Your task to perform on an android device: open sync settings in chrome Image 0: 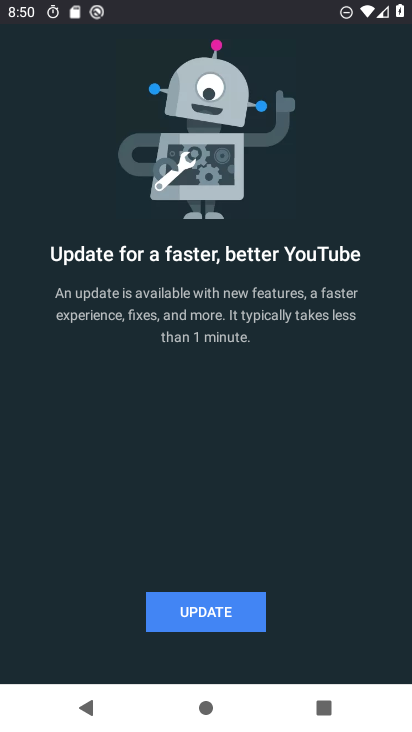
Step 0: press home button
Your task to perform on an android device: open sync settings in chrome Image 1: 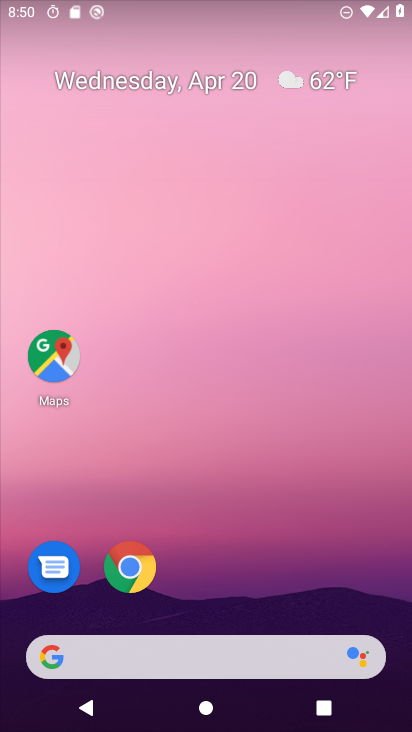
Step 1: click (135, 563)
Your task to perform on an android device: open sync settings in chrome Image 2: 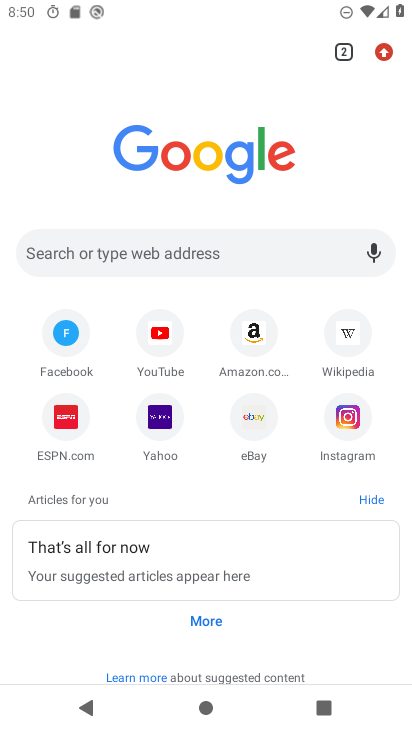
Step 2: click (378, 54)
Your task to perform on an android device: open sync settings in chrome Image 3: 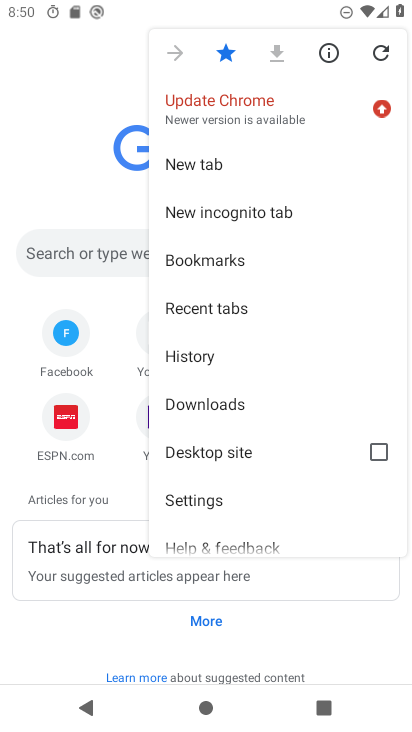
Step 3: click (191, 499)
Your task to perform on an android device: open sync settings in chrome Image 4: 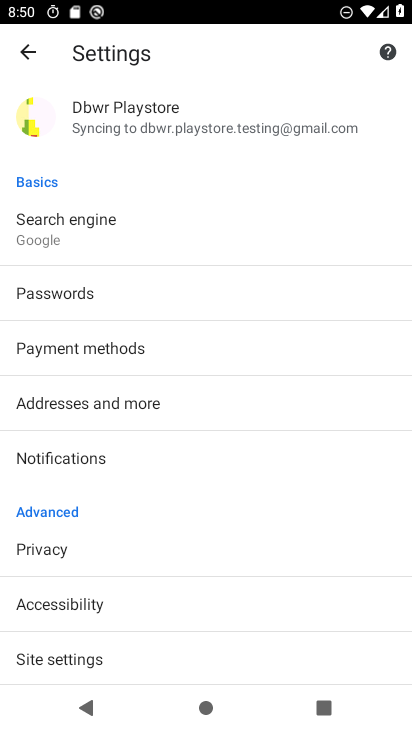
Step 4: click (186, 130)
Your task to perform on an android device: open sync settings in chrome Image 5: 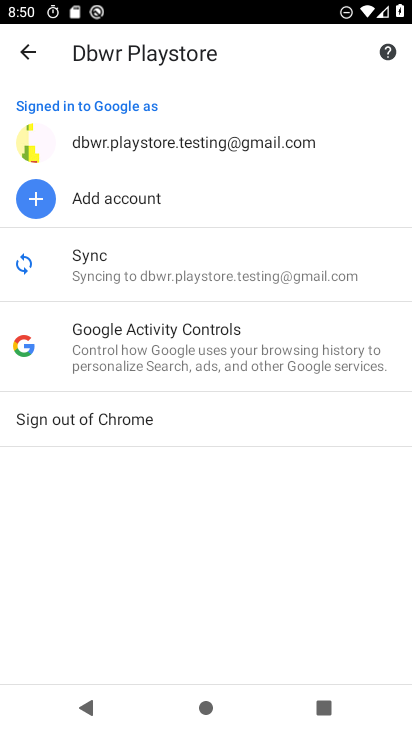
Step 5: click (116, 264)
Your task to perform on an android device: open sync settings in chrome Image 6: 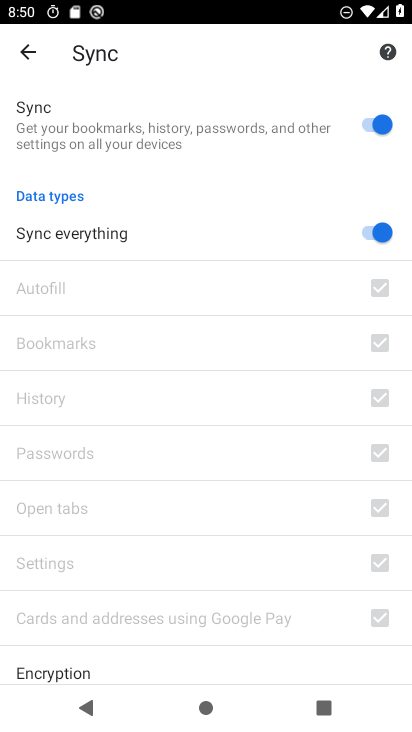
Step 6: task complete